Your task to perform on an android device: add a contact Image 0: 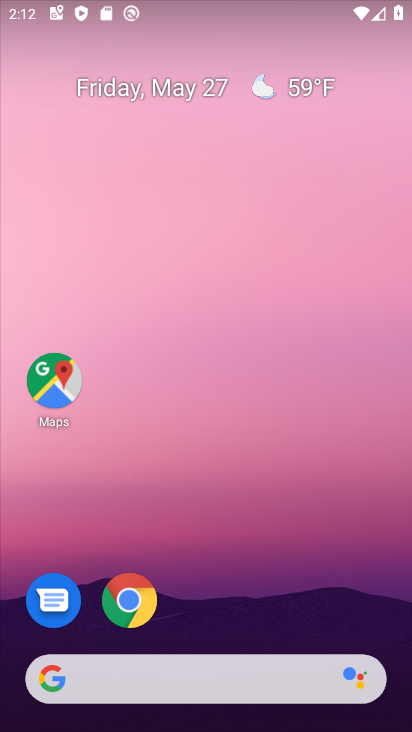
Step 0: drag from (235, 603) to (208, 178)
Your task to perform on an android device: add a contact Image 1: 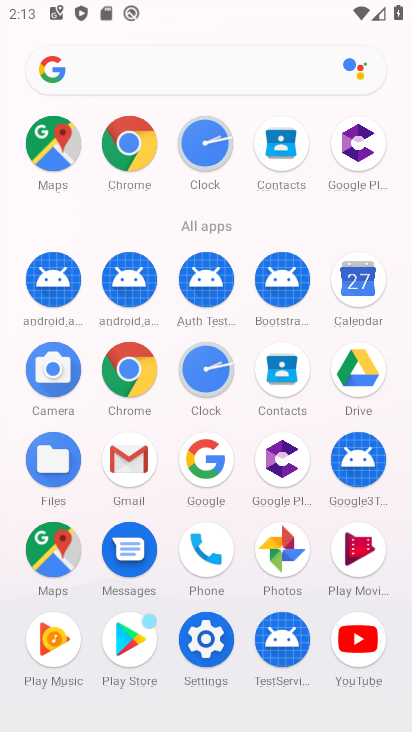
Step 1: click (281, 144)
Your task to perform on an android device: add a contact Image 2: 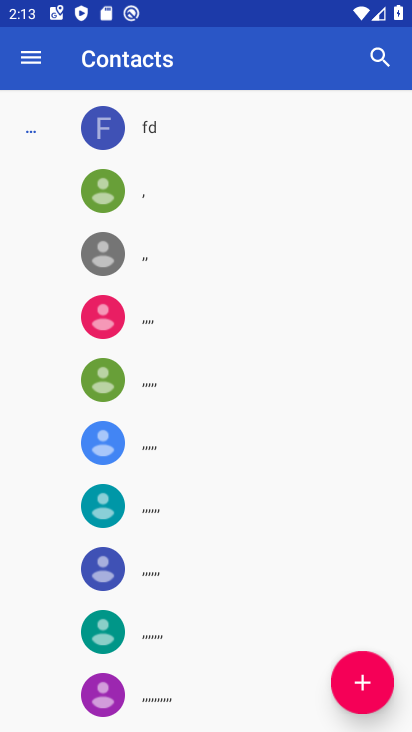
Step 2: click (363, 684)
Your task to perform on an android device: add a contact Image 3: 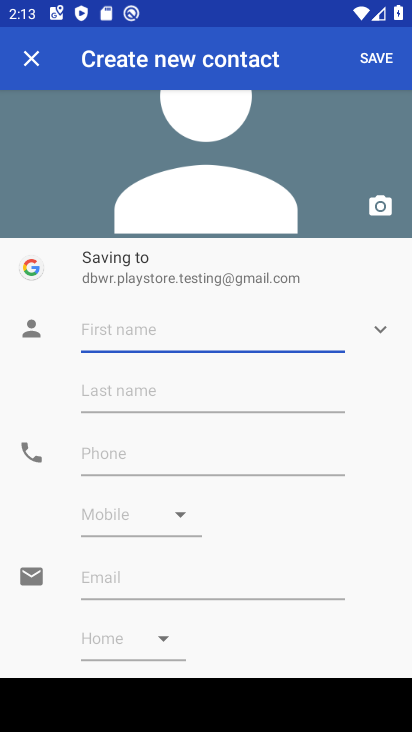
Step 3: type "Adityanath"
Your task to perform on an android device: add a contact Image 4: 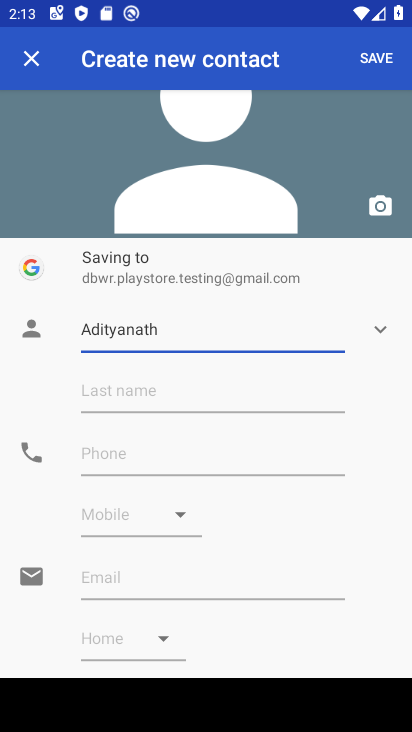
Step 4: click (133, 392)
Your task to perform on an android device: add a contact Image 5: 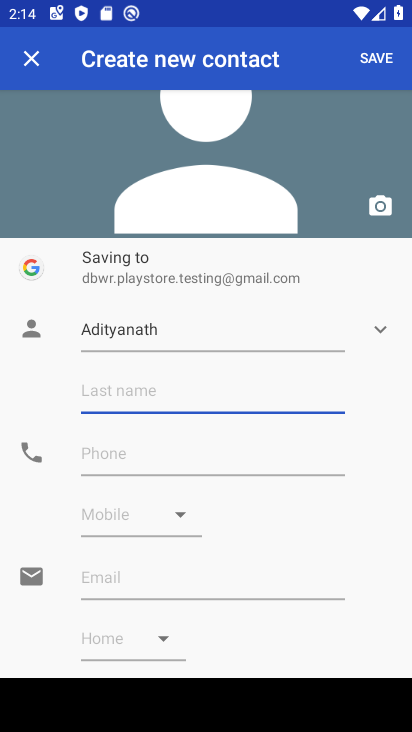
Step 5: type "kumaran"
Your task to perform on an android device: add a contact Image 6: 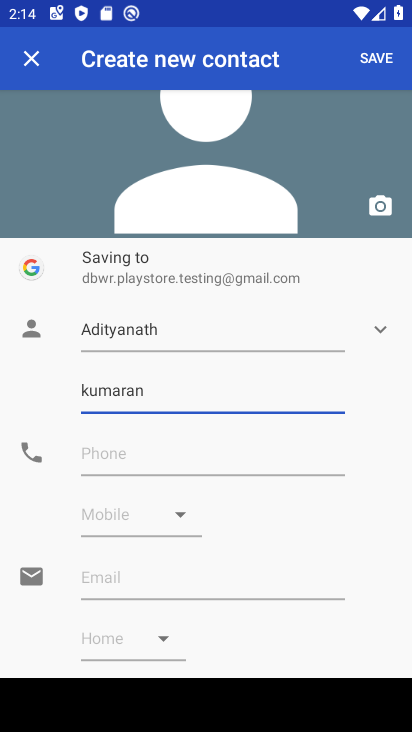
Step 6: click (224, 456)
Your task to perform on an android device: add a contact Image 7: 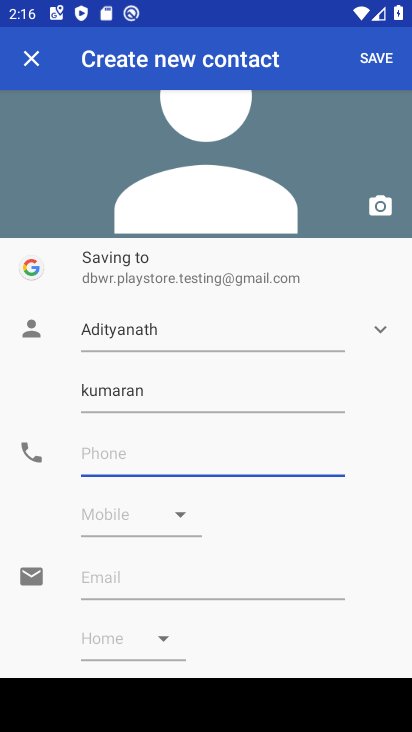
Step 7: type "0988876544321"
Your task to perform on an android device: add a contact Image 8: 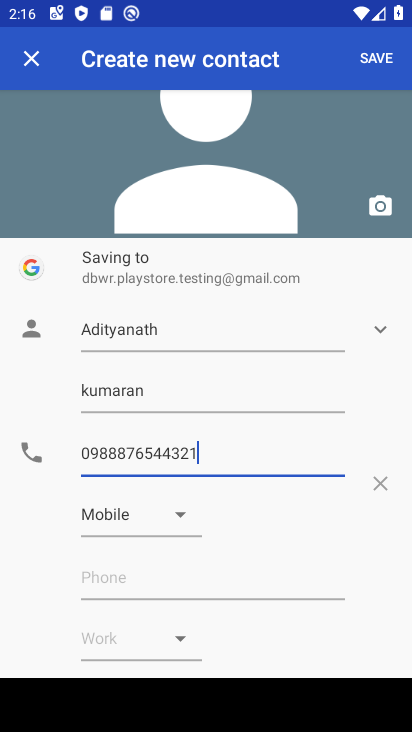
Step 8: click (389, 56)
Your task to perform on an android device: add a contact Image 9: 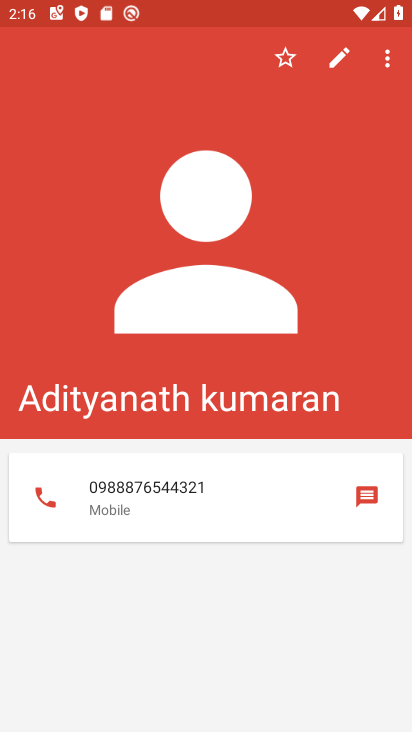
Step 9: task complete